Your task to perform on an android device: toggle data saver in the chrome app Image 0: 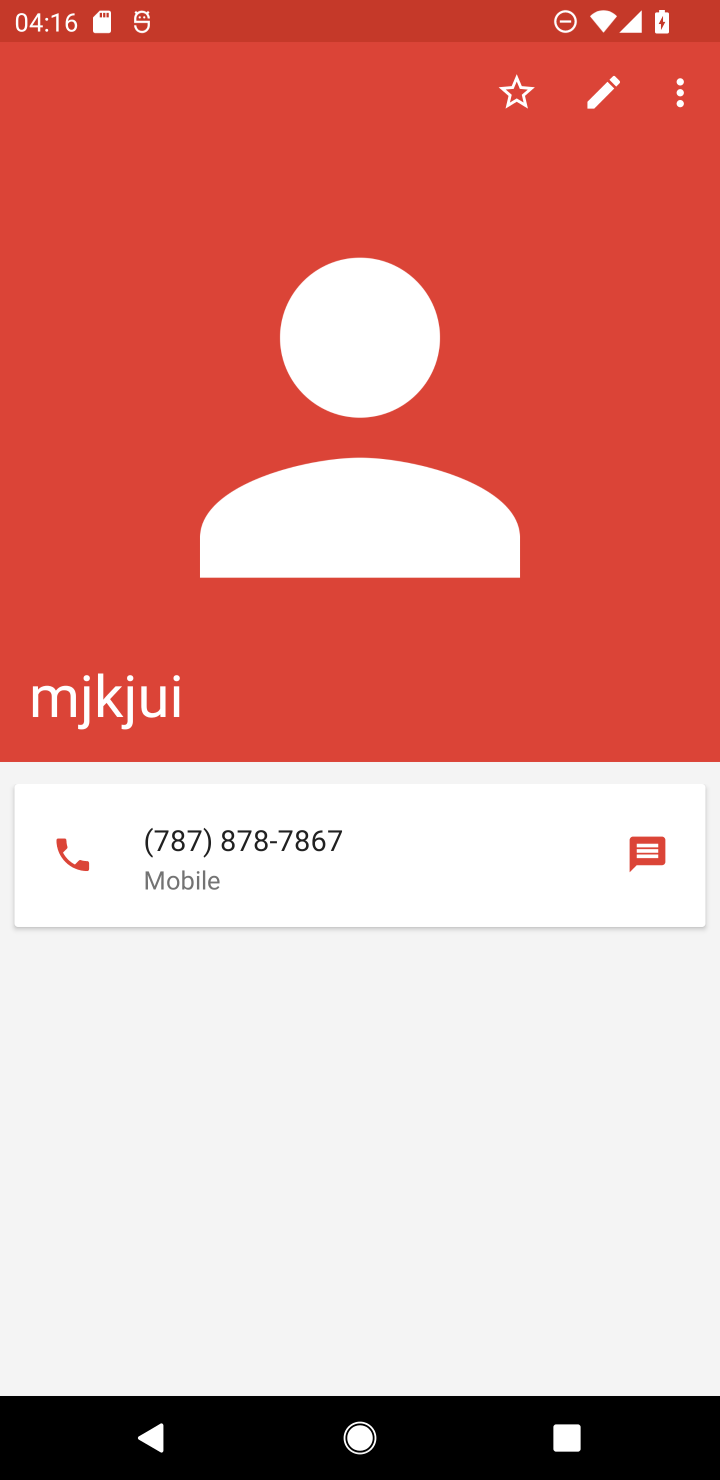
Step 0: press home button
Your task to perform on an android device: toggle data saver in the chrome app Image 1: 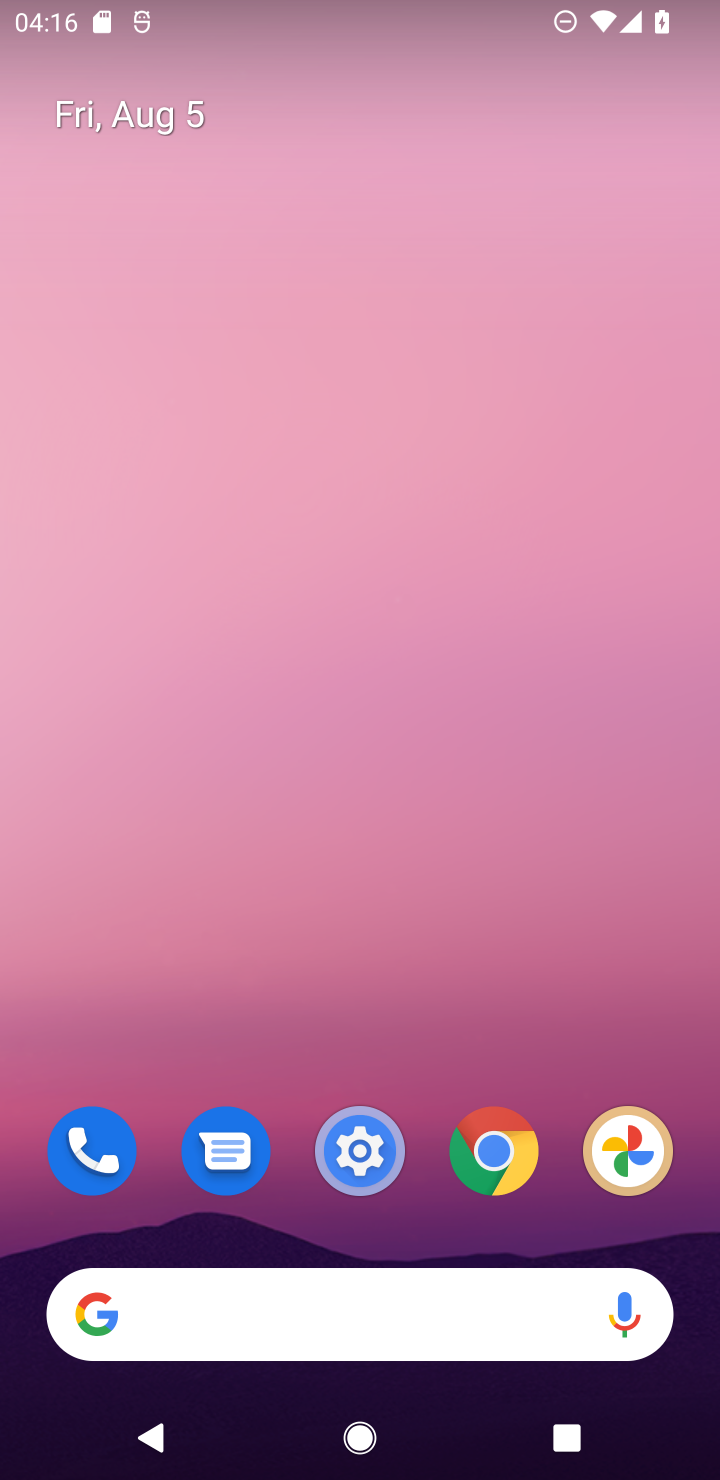
Step 1: click (492, 1154)
Your task to perform on an android device: toggle data saver in the chrome app Image 2: 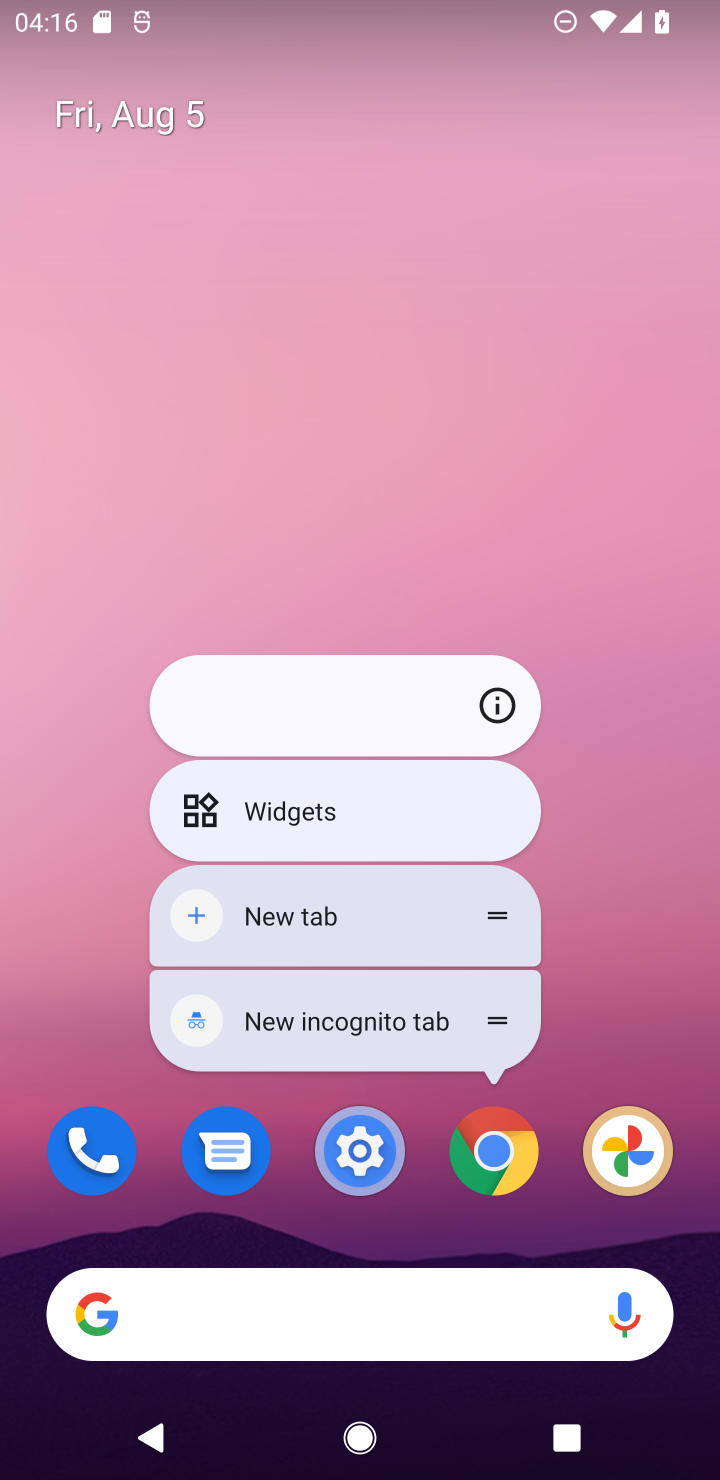
Step 2: click (492, 1154)
Your task to perform on an android device: toggle data saver in the chrome app Image 3: 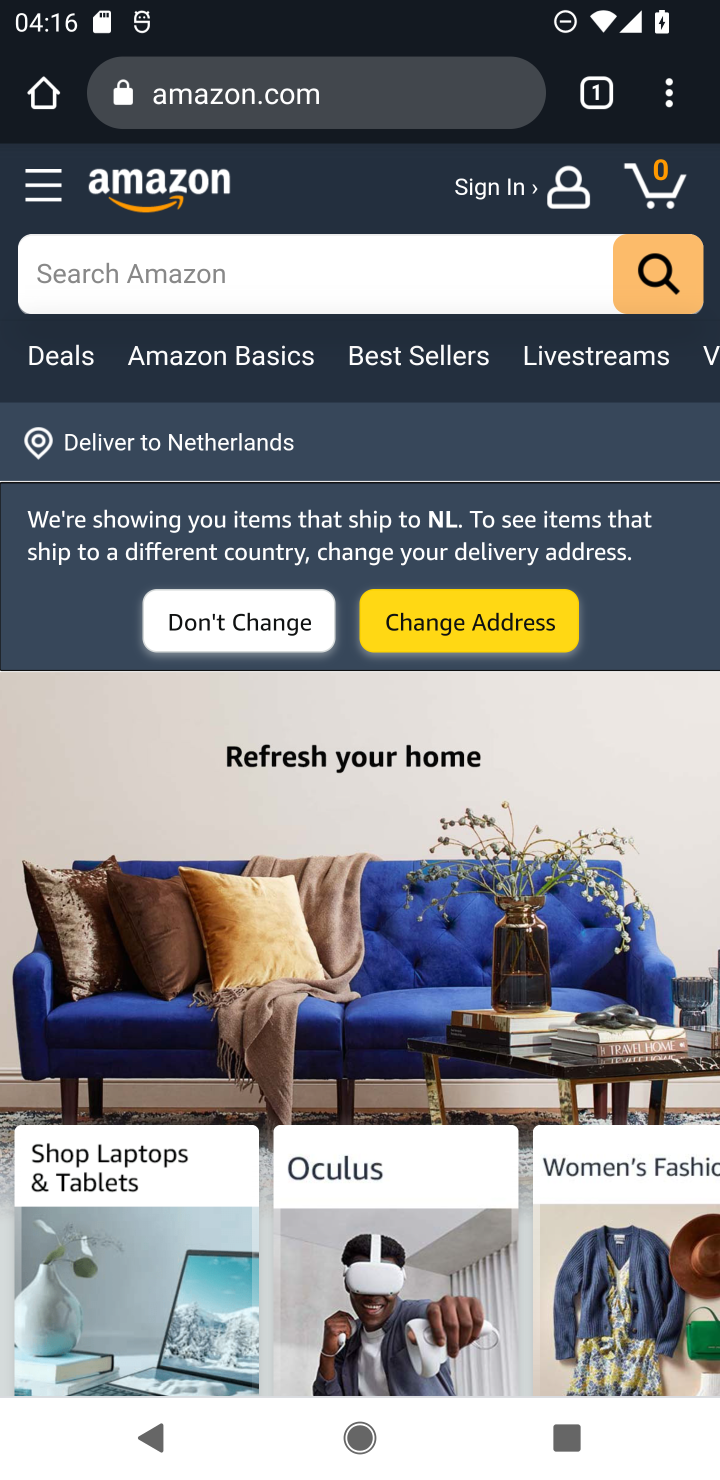
Step 3: click (668, 109)
Your task to perform on an android device: toggle data saver in the chrome app Image 4: 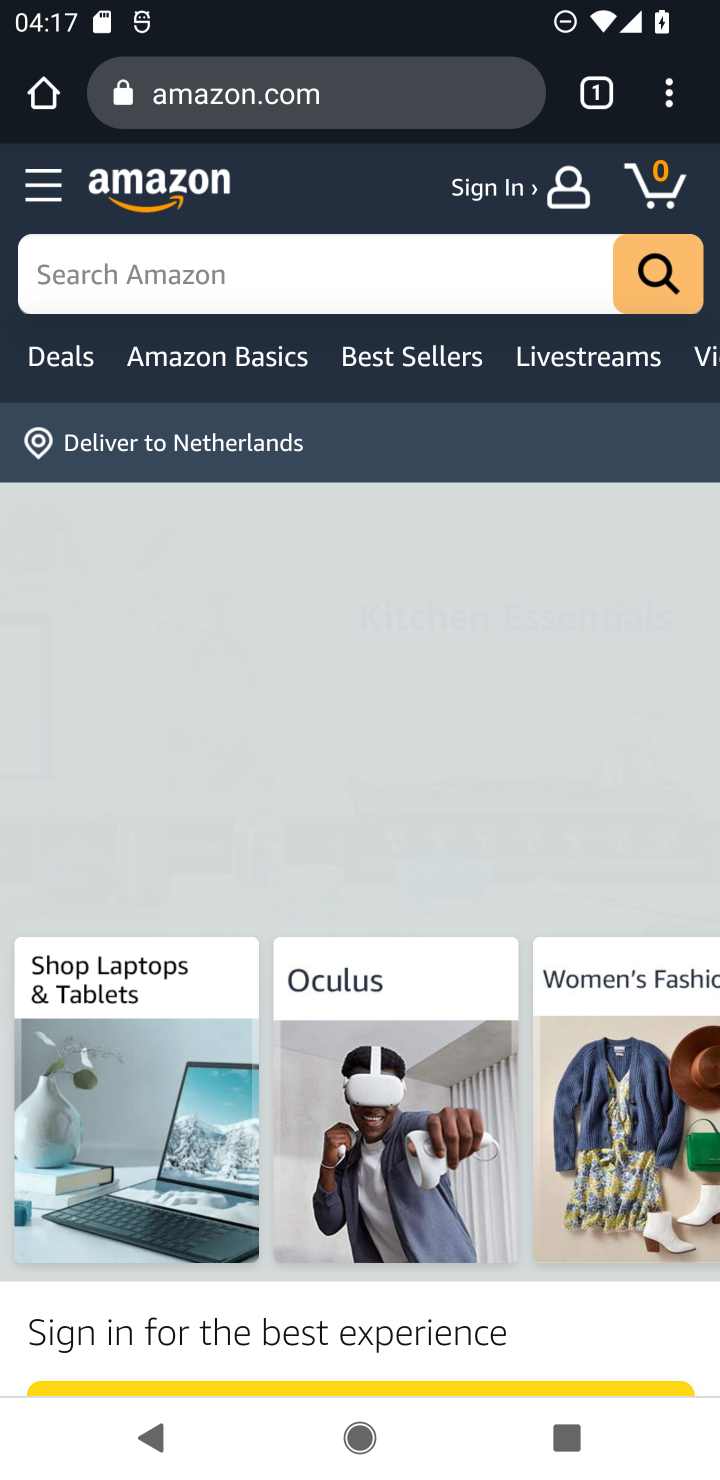
Step 4: click (657, 94)
Your task to perform on an android device: toggle data saver in the chrome app Image 5: 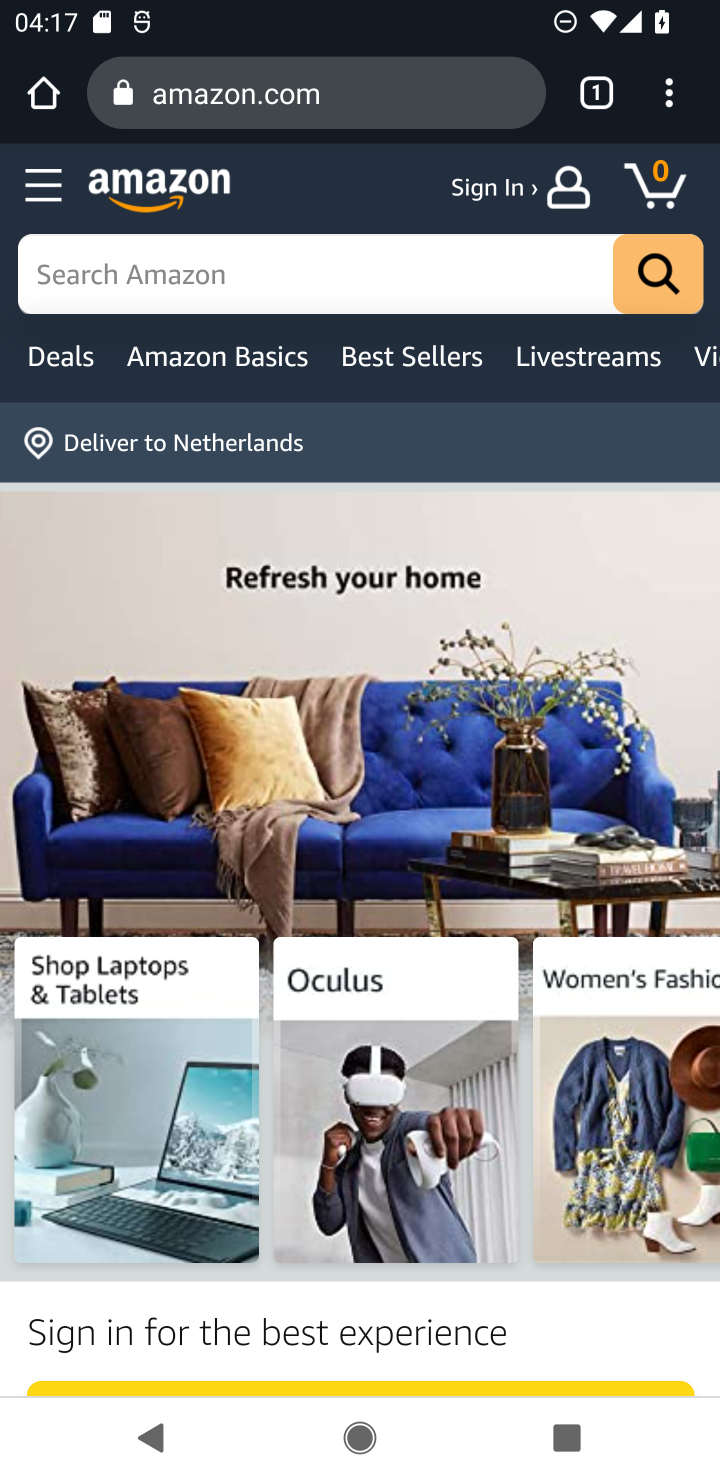
Step 5: click (702, 94)
Your task to perform on an android device: toggle data saver in the chrome app Image 6: 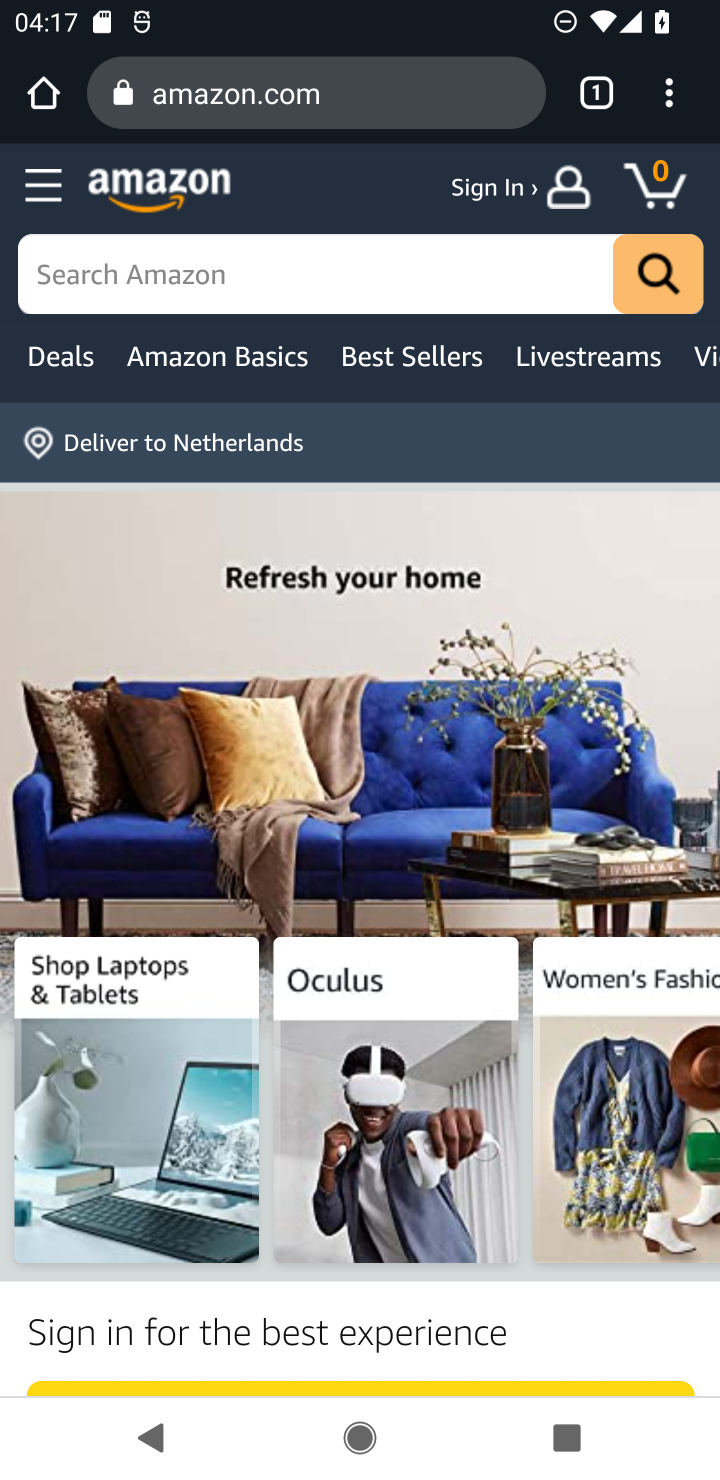
Step 6: click (705, 117)
Your task to perform on an android device: toggle data saver in the chrome app Image 7: 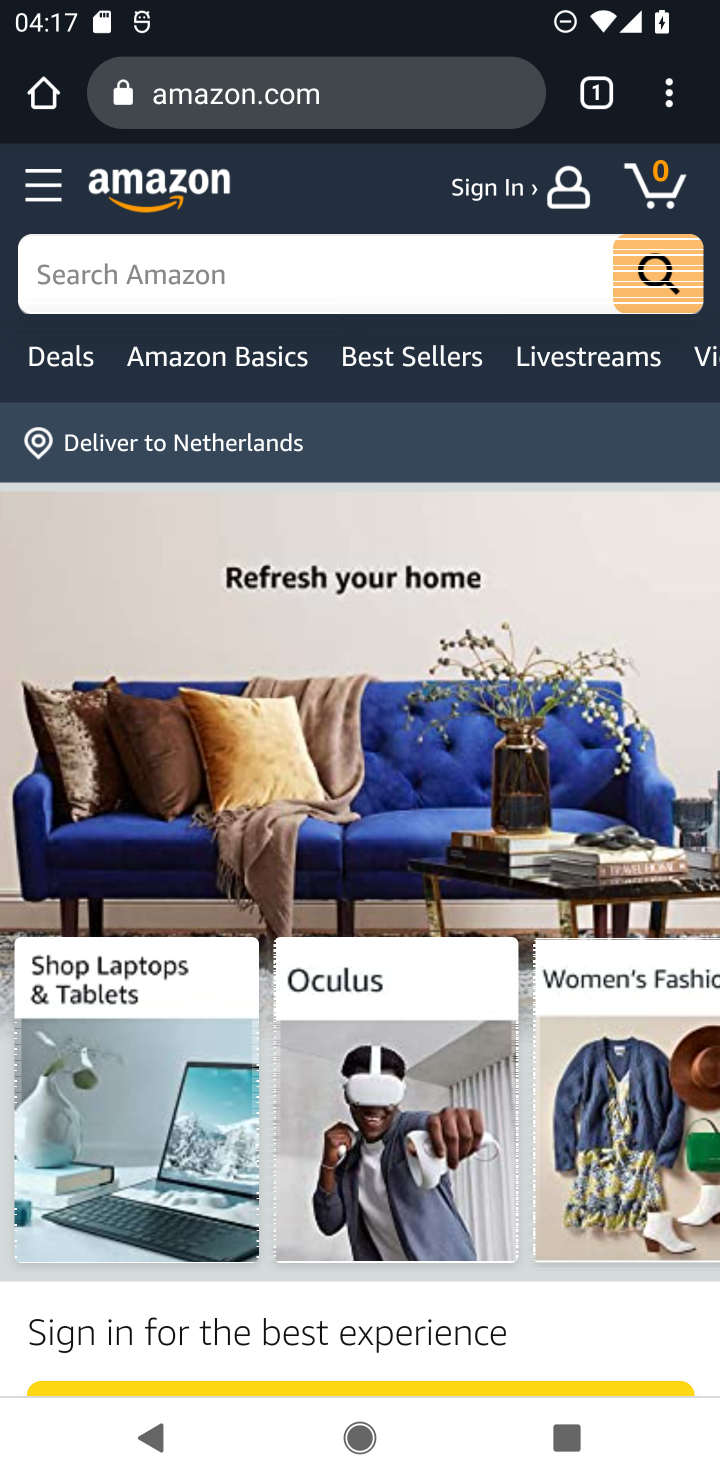
Step 7: click (711, 117)
Your task to perform on an android device: toggle data saver in the chrome app Image 8: 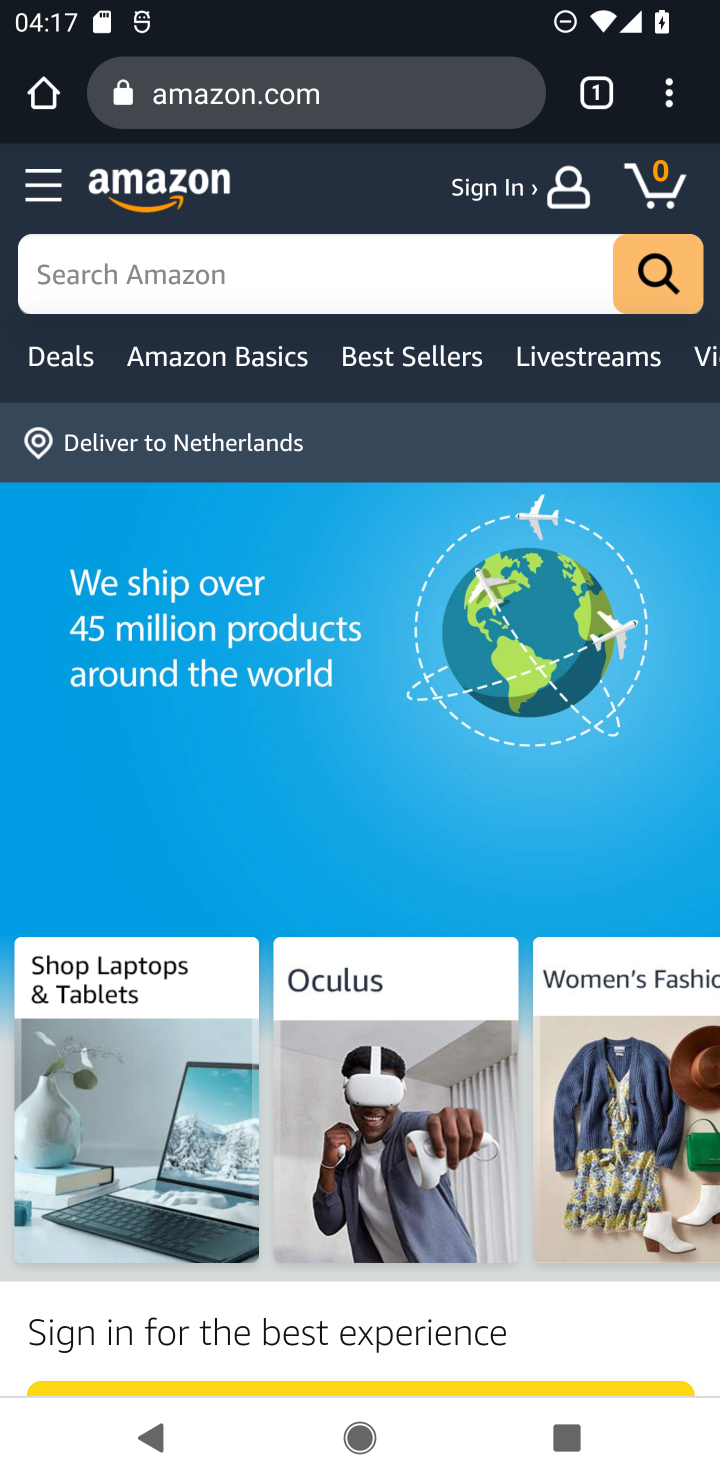
Step 8: click (711, 117)
Your task to perform on an android device: toggle data saver in the chrome app Image 9: 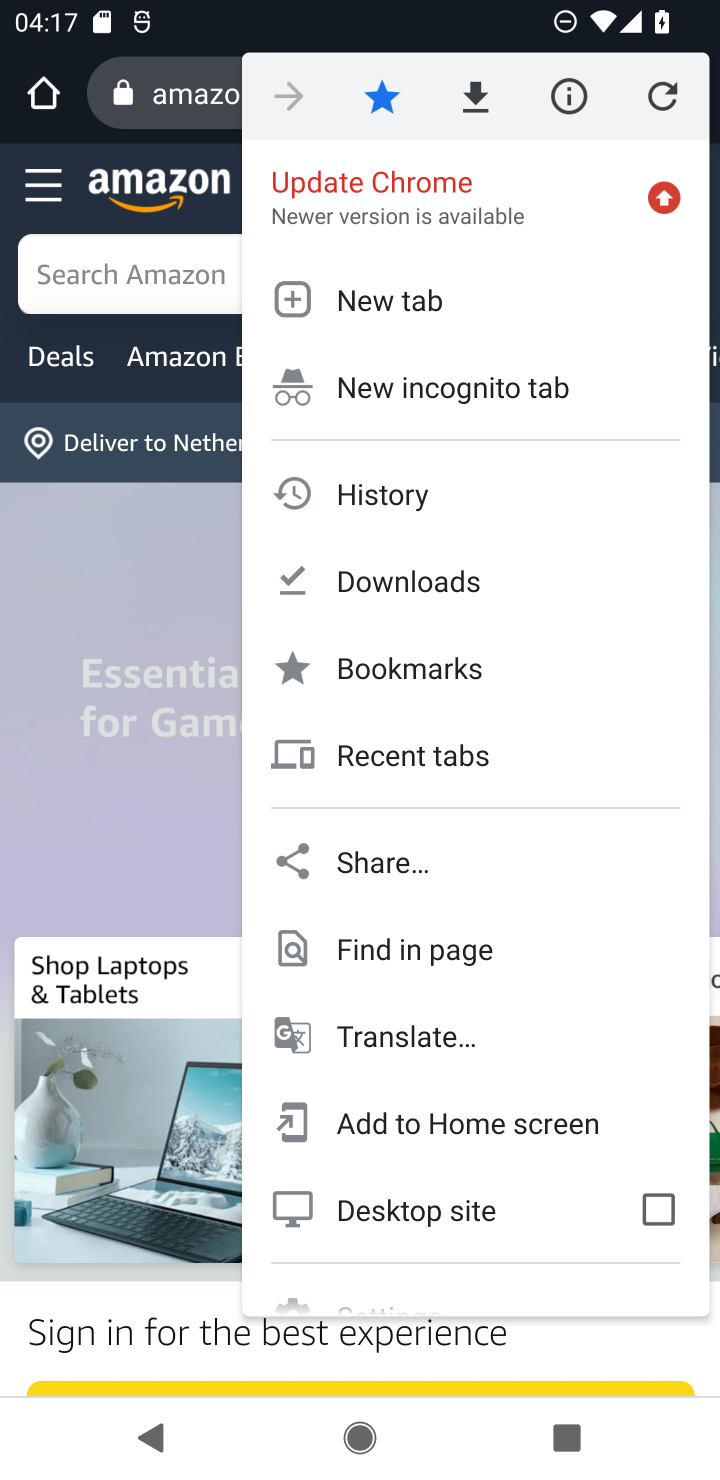
Step 9: drag from (479, 1178) to (443, 837)
Your task to perform on an android device: toggle data saver in the chrome app Image 10: 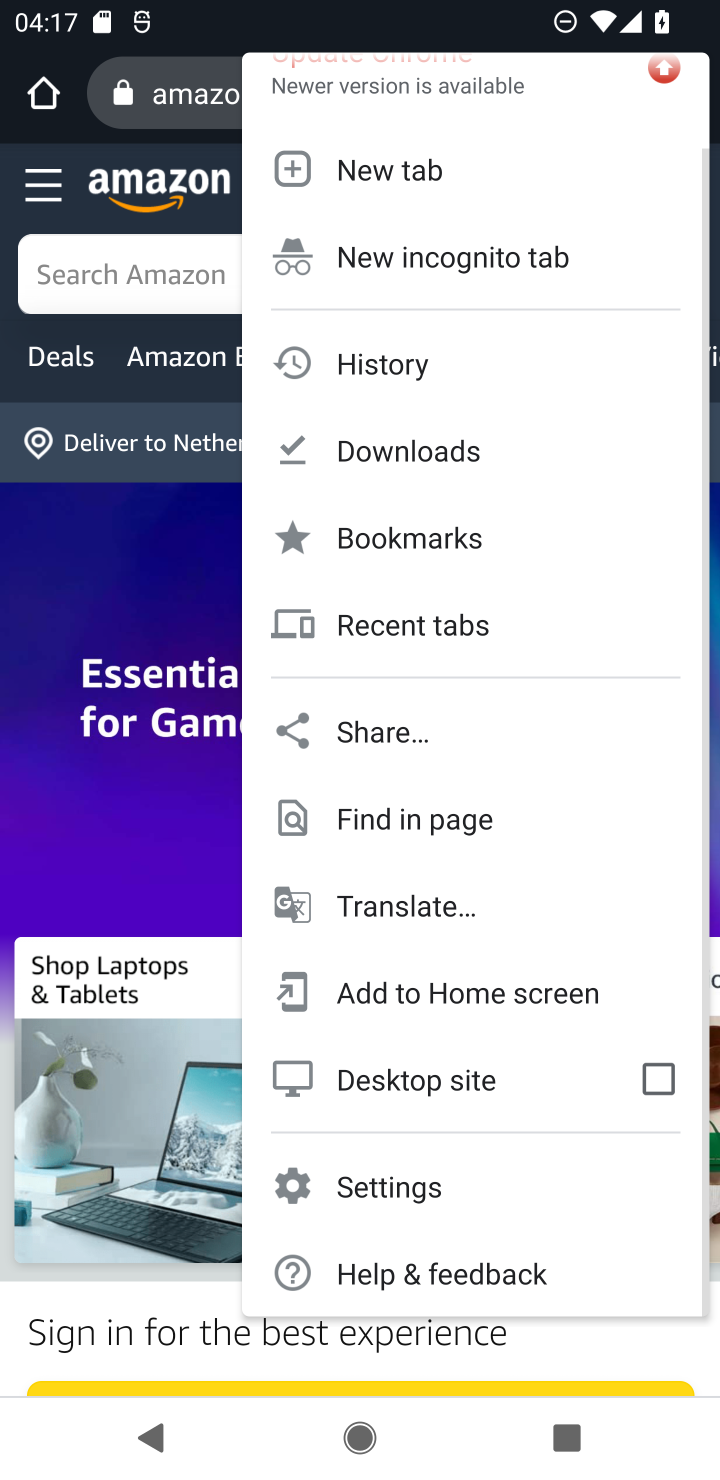
Step 10: click (376, 1180)
Your task to perform on an android device: toggle data saver in the chrome app Image 11: 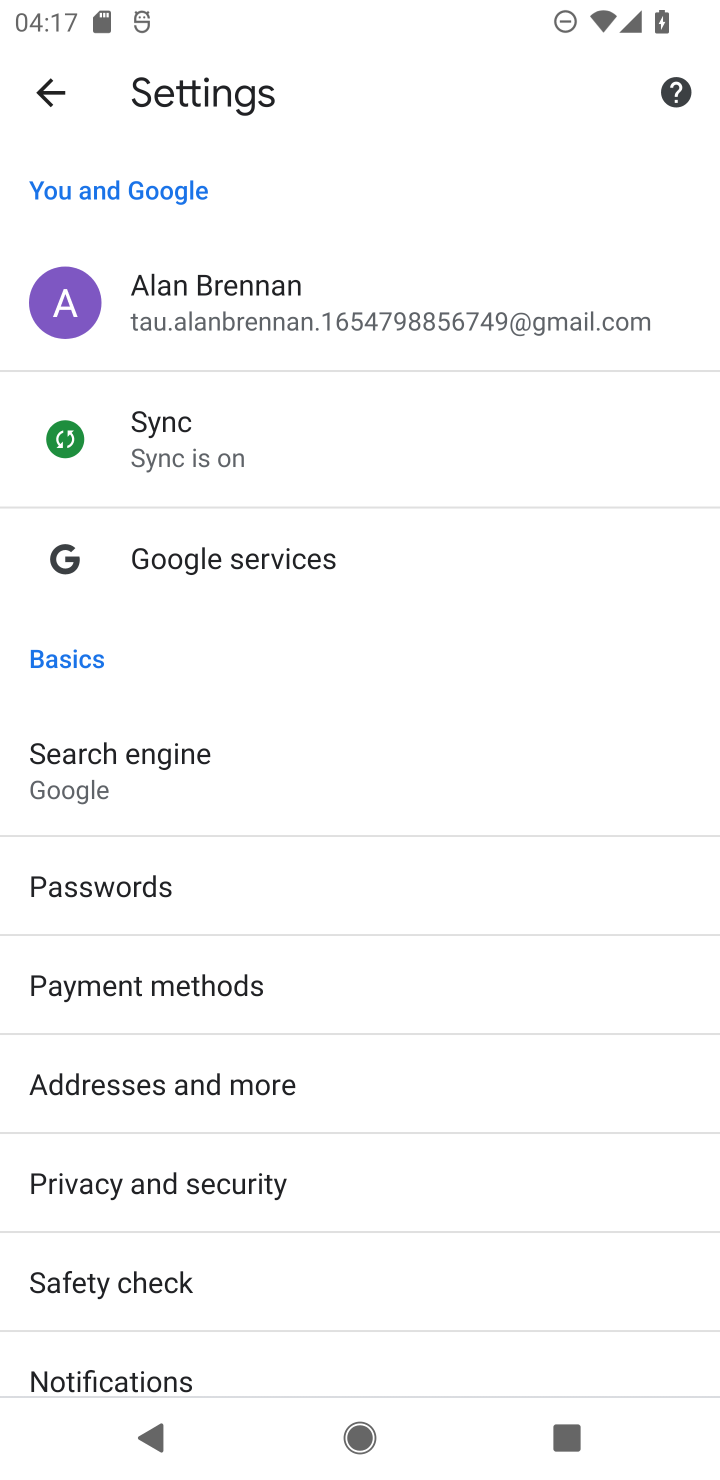
Step 11: drag from (266, 1195) to (263, 782)
Your task to perform on an android device: toggle data saver in the chrome app Image 12: 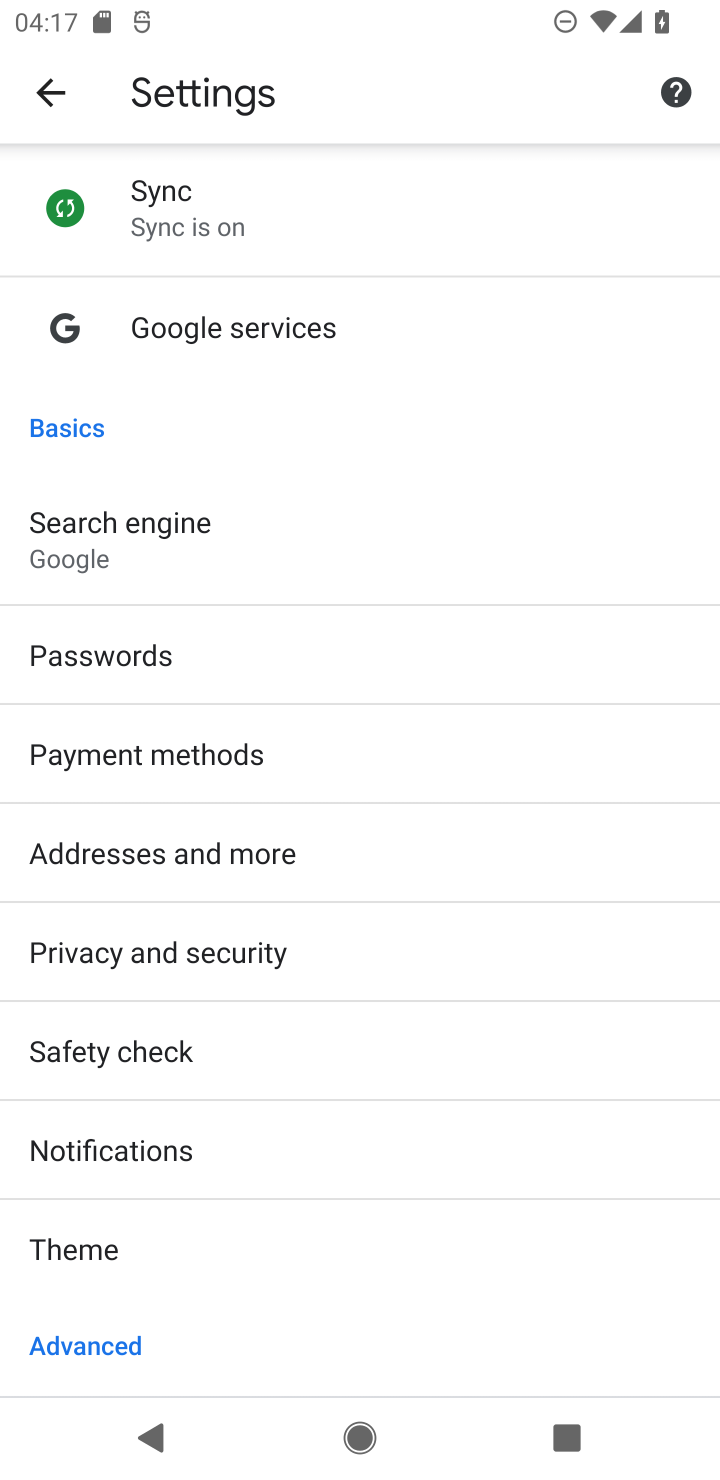
Step 12: drag from (137, 1307) to (136, 798)
Your task to perform on an android device: toggle data saver in the chrome app Image 13: 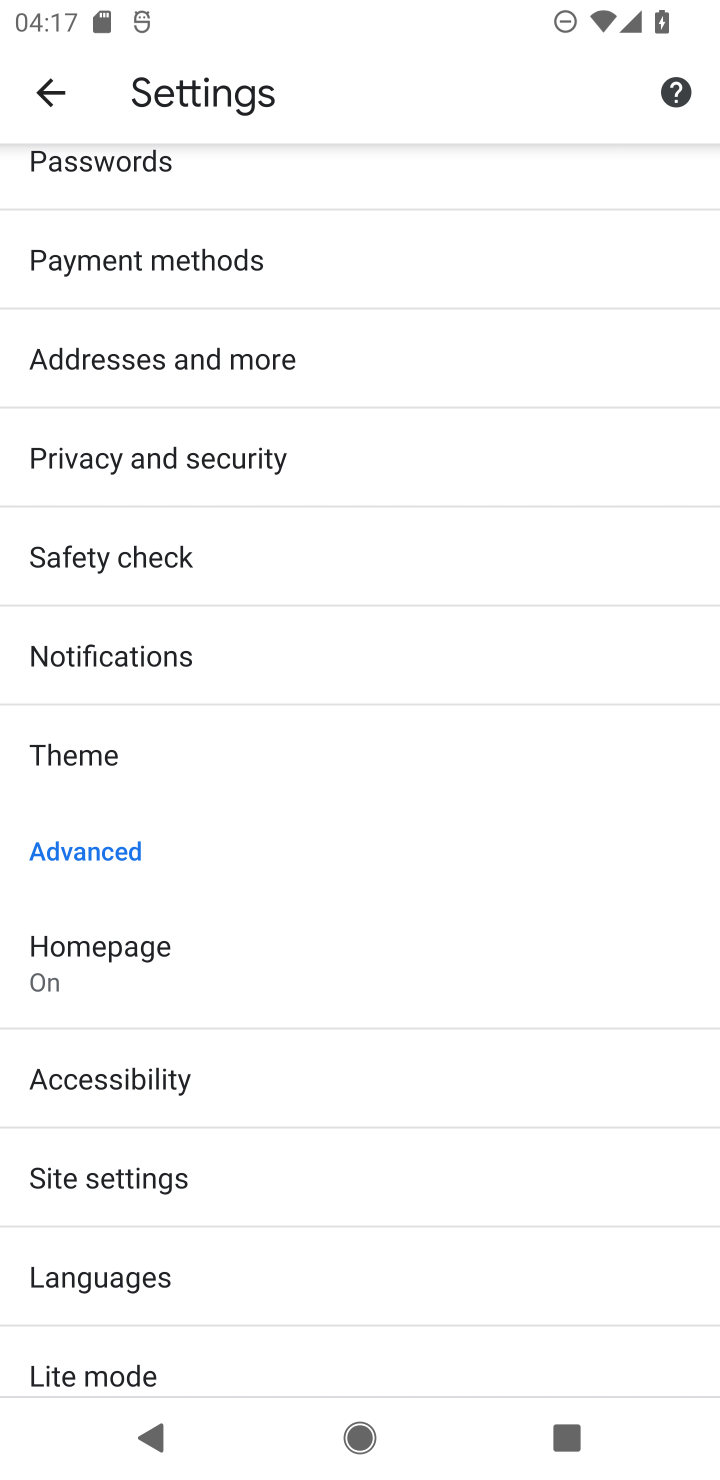
Step 13: click (172, 1360)
Your task to perform on an android device: toggle data saver in the chrome app Image 14: 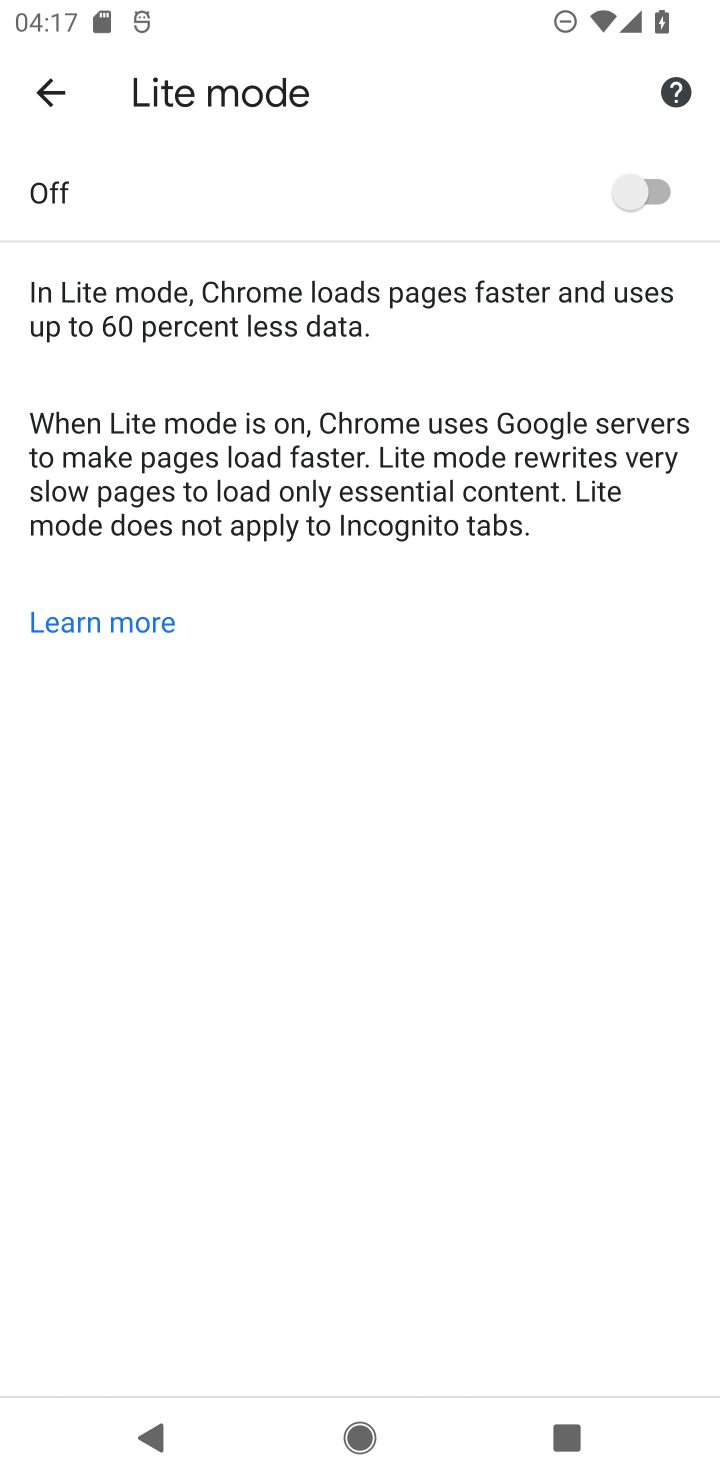
Step 14: click (614, 212)
Your task to perform on an android device: toggle data saver in the chrome app Image 15: 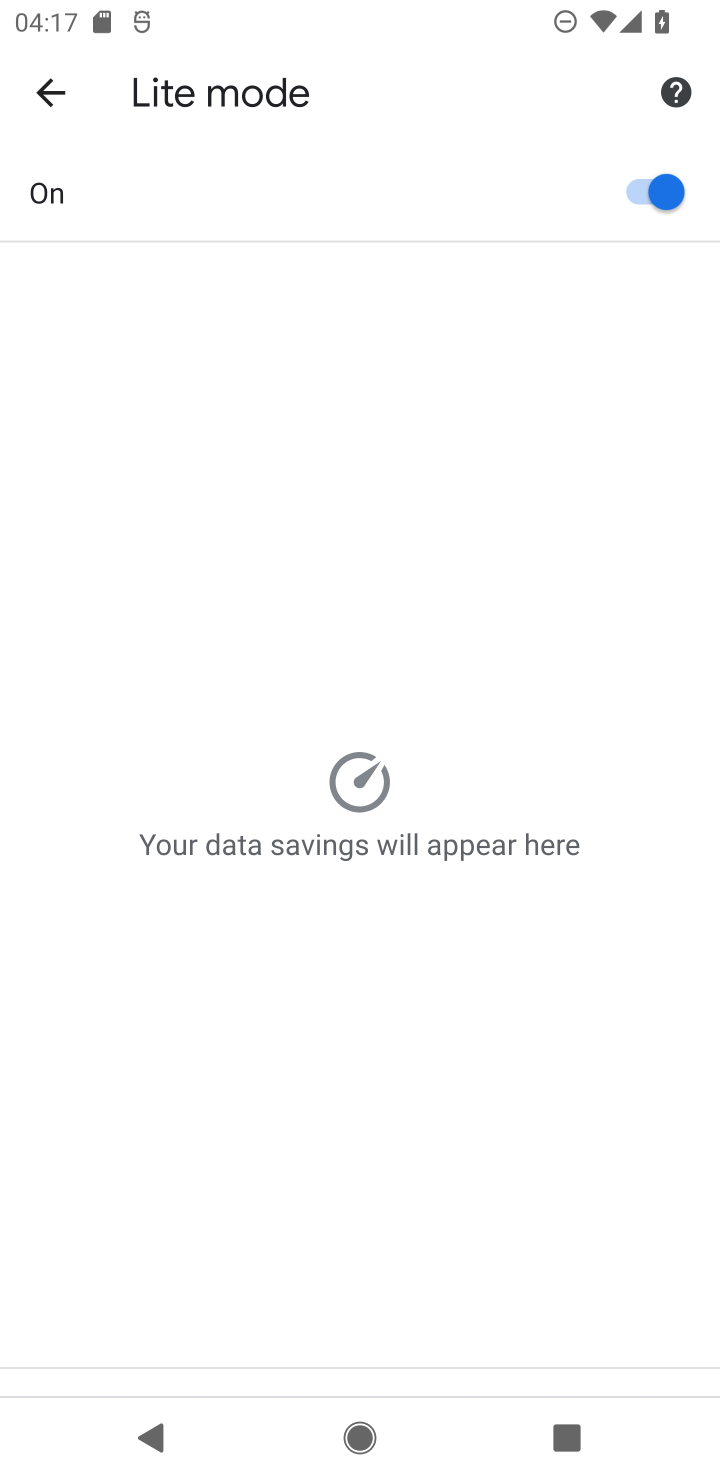
Step 15: task complete